Your task to perform on an android device: Search for razer nari on target, select the first entry, and add it to the cart. Image 0: 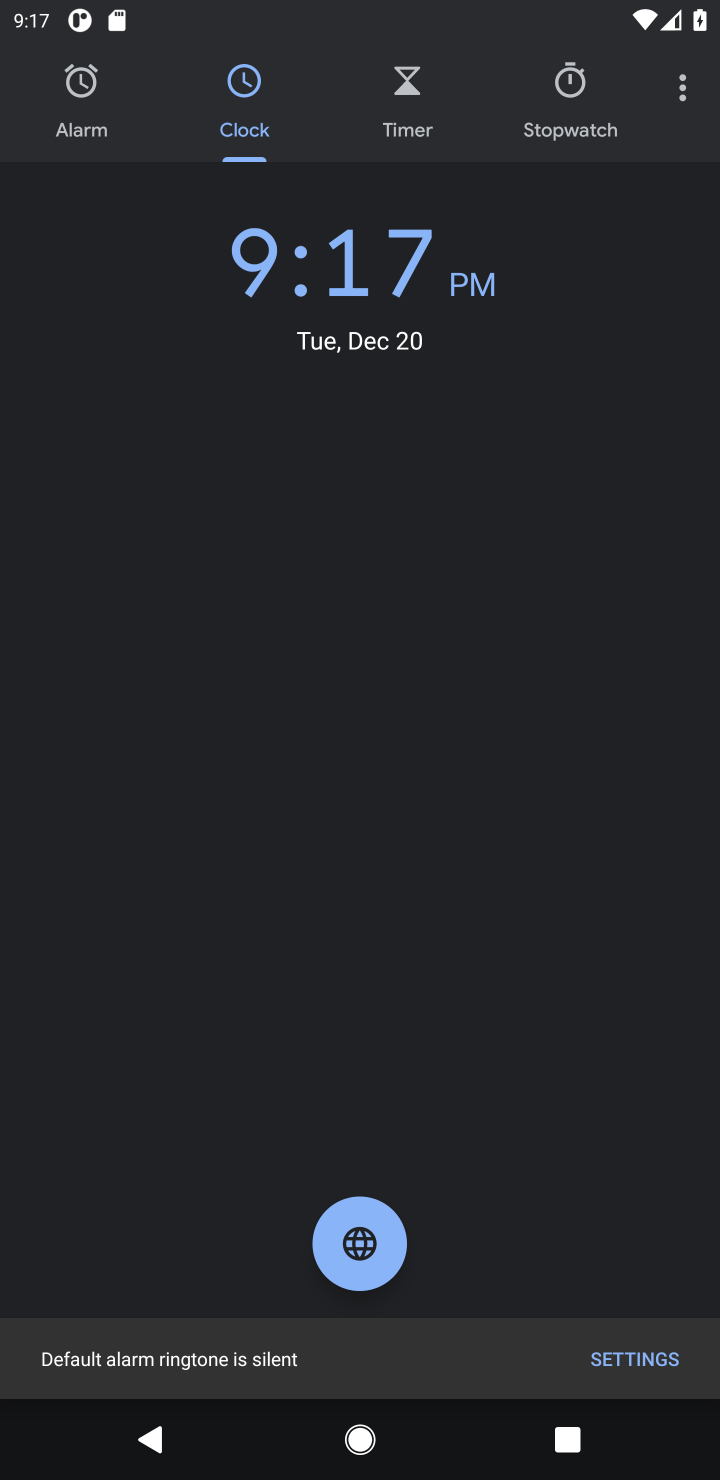
Step 0: press home button
Your task to perform on an android device: Search for razer nari on target, select the first entry, and add it to the cart. Image 1: 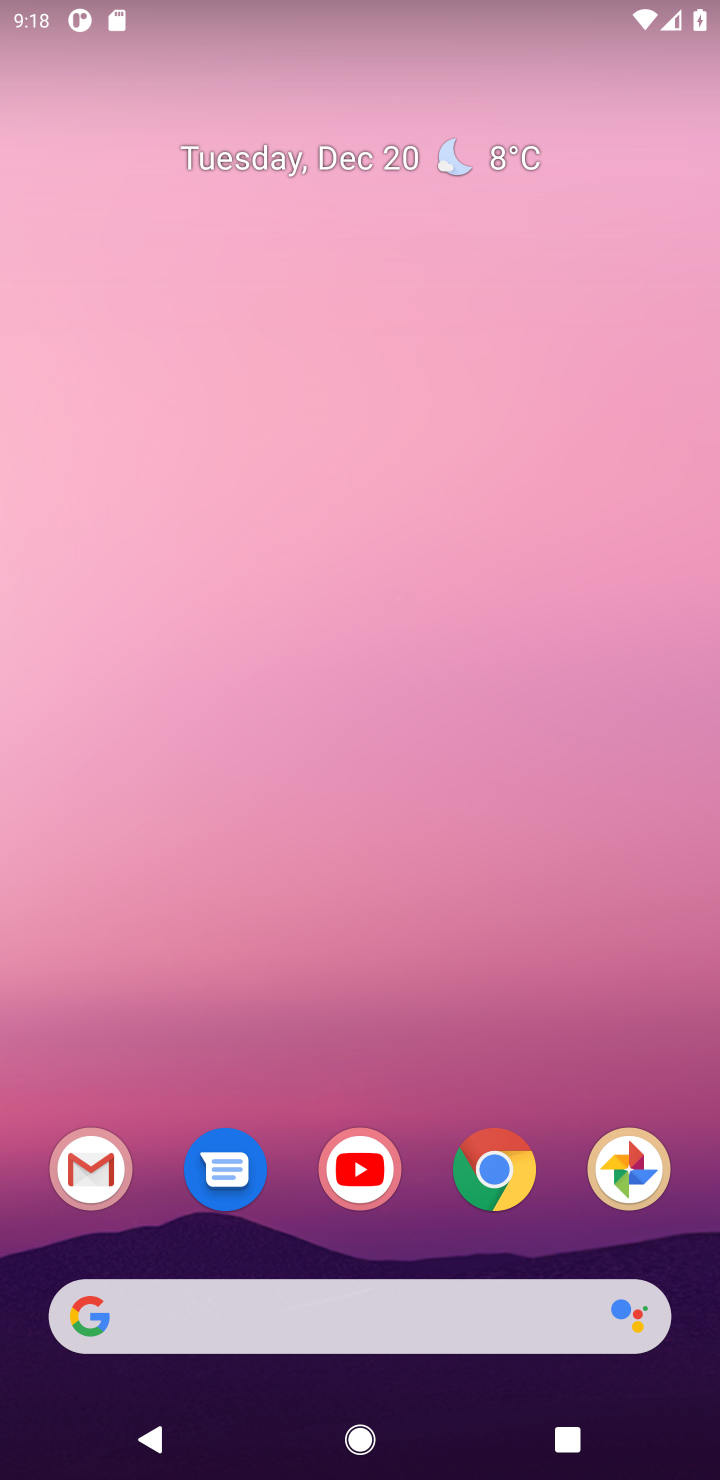
Step 1: click (499, 1166)
Your task to perform on an android device: Search for razer nari on target, select the first entry, and add it to the cart. Image 2: 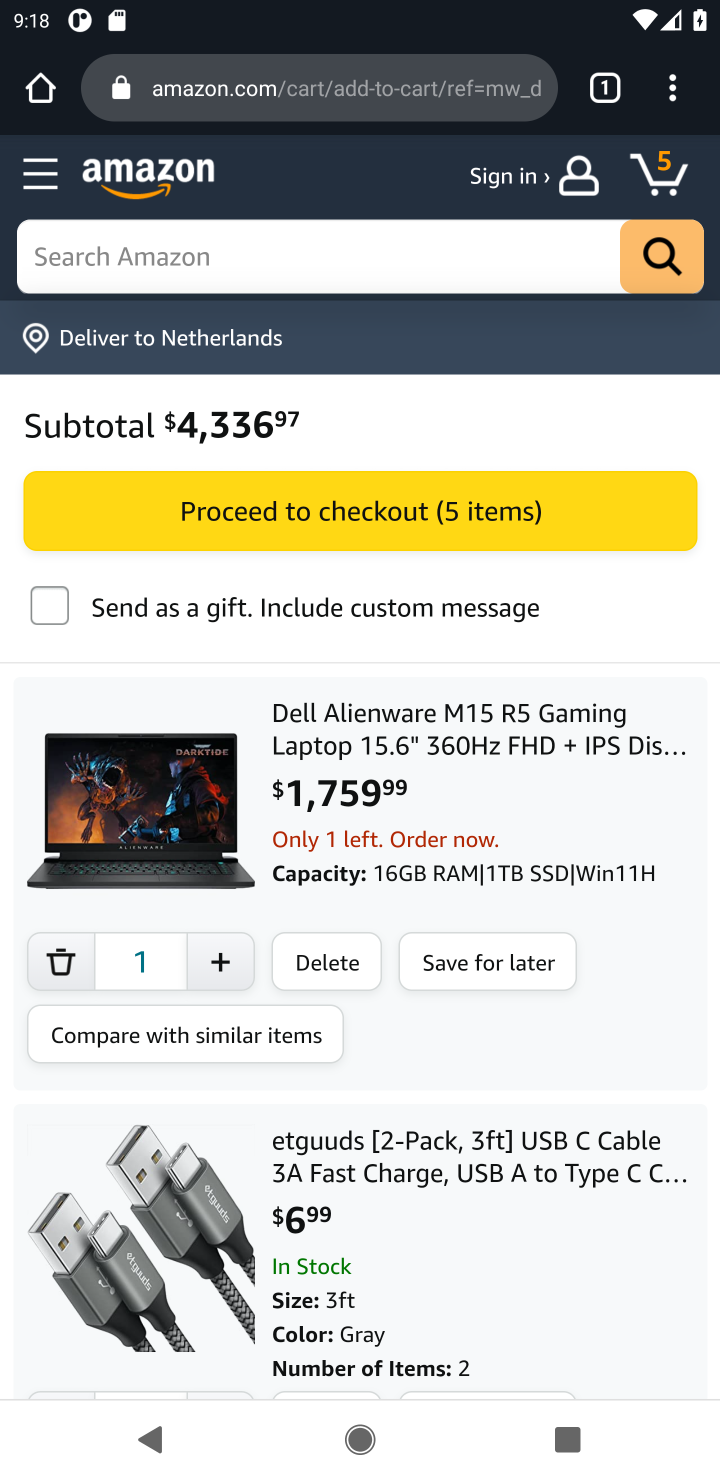
Step 2: click (362, 103)
Your task to perform on an android device: Search for razer nari on target, select the first entry, and add it to the cart. Image 3: 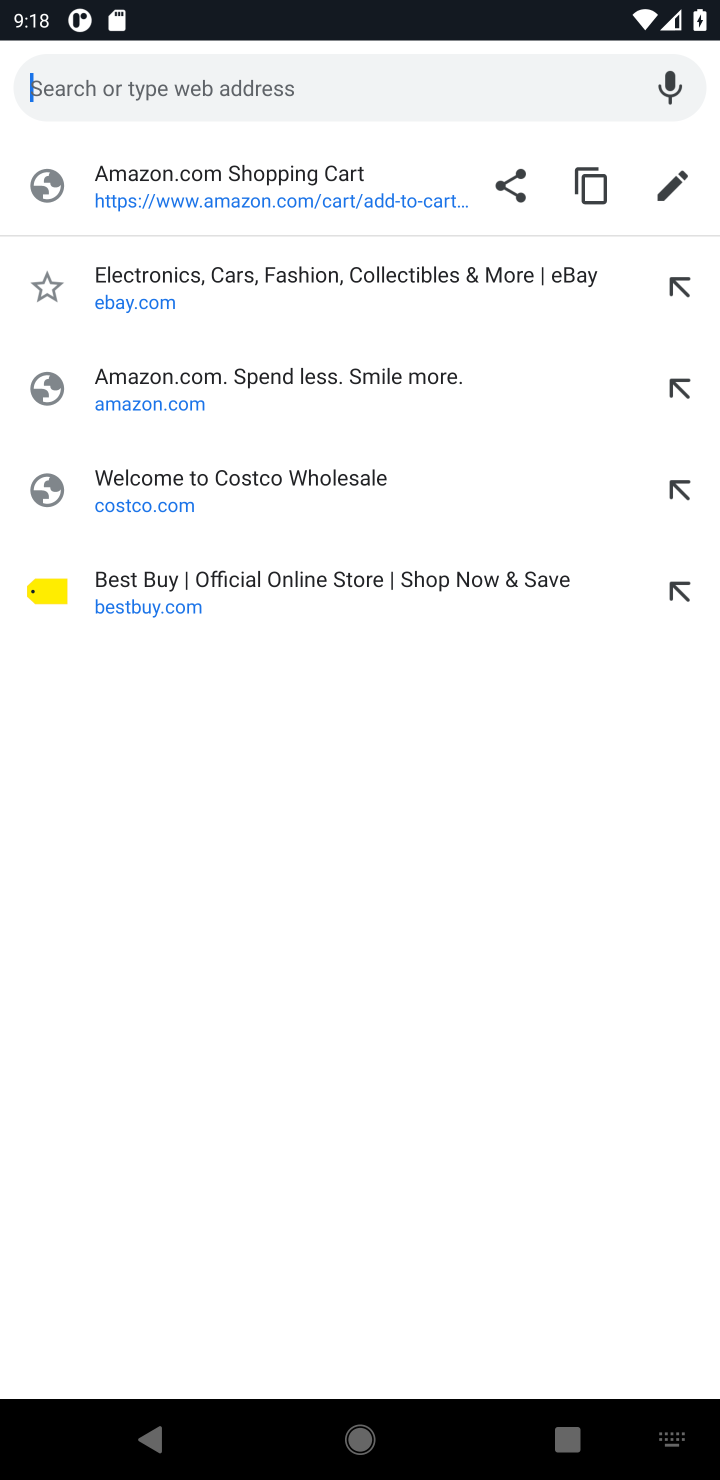
Step 3: type "target"
Your task to perform on an android device: Search for razer nari on target, select the first entry, and add it to the cart. Image 4: 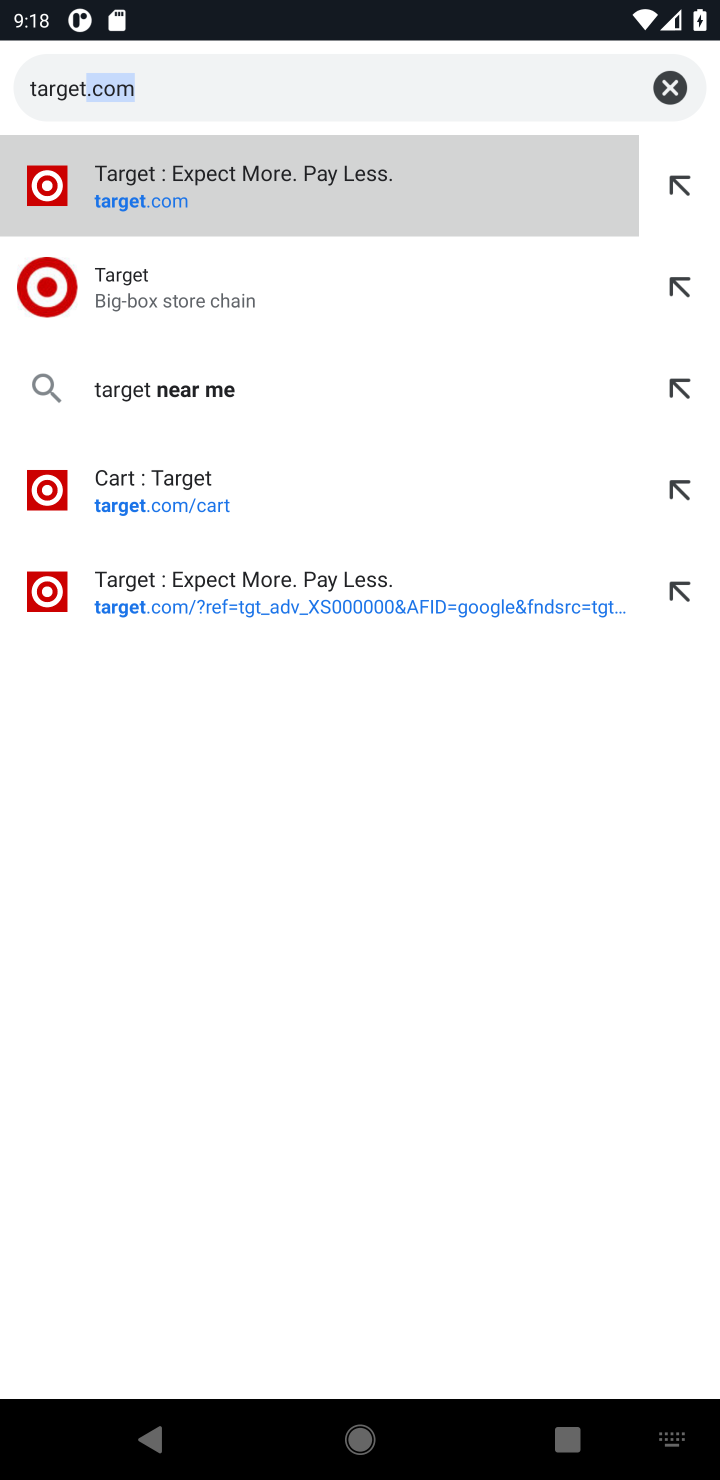
Step 4: click (248, 191)
Your task to perform on an android device: Search for razer nari on target, select the first entry, and add it to the cart. Image 5: 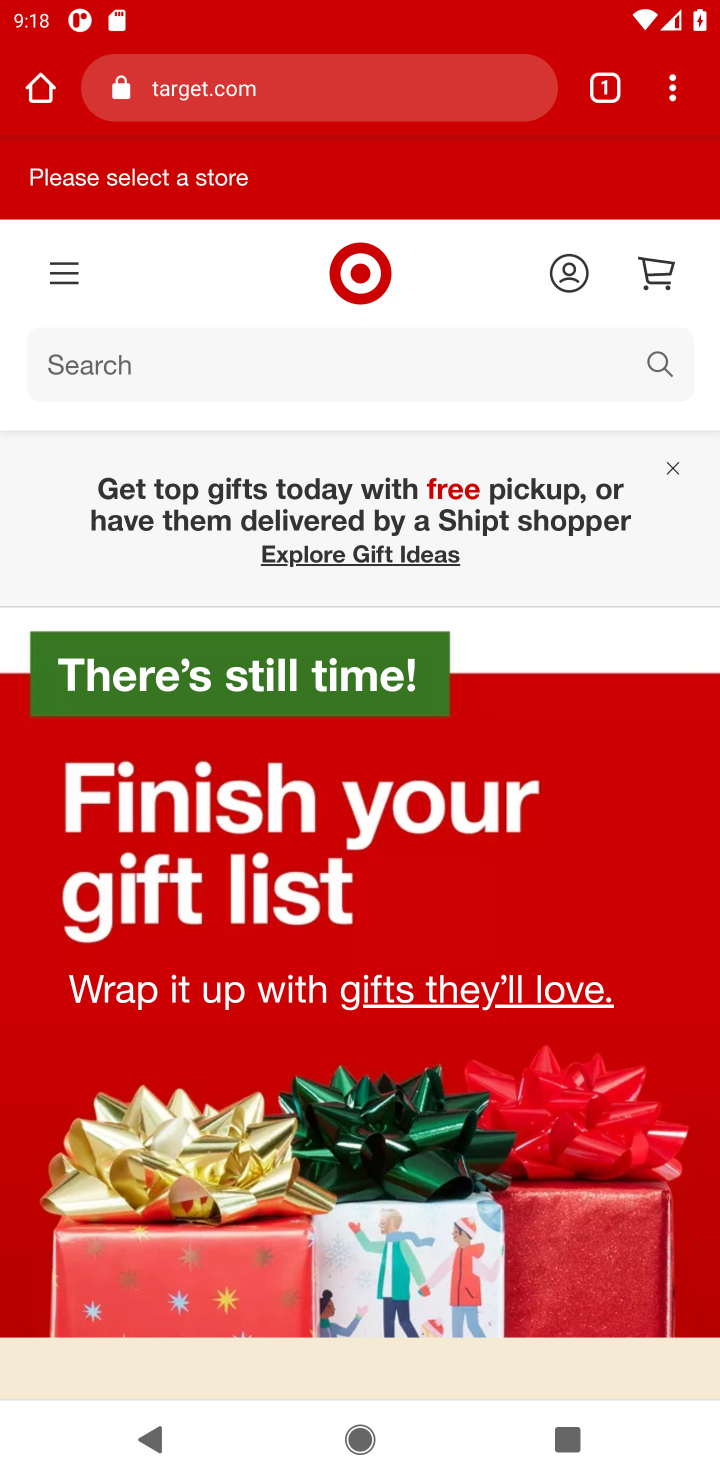
Step 5: click (193, 373)
Your task to perform on an android device: Search for razer nari on target, select the first entry, and add it to the cart. Image 6: 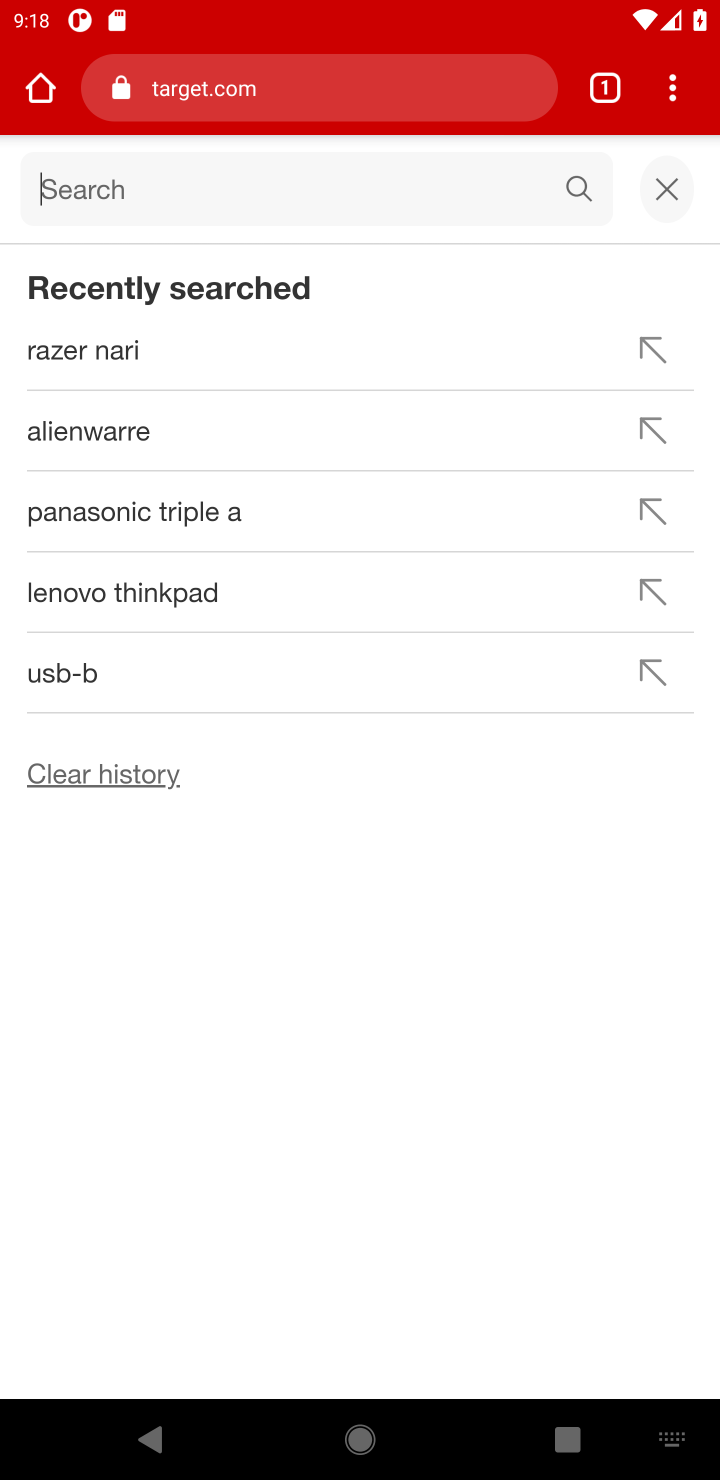
Step 6: type "razer nari"
Your task to perform on an android device: Search for razer nari on target, select the first entry, and add it to the cart. Image 7: 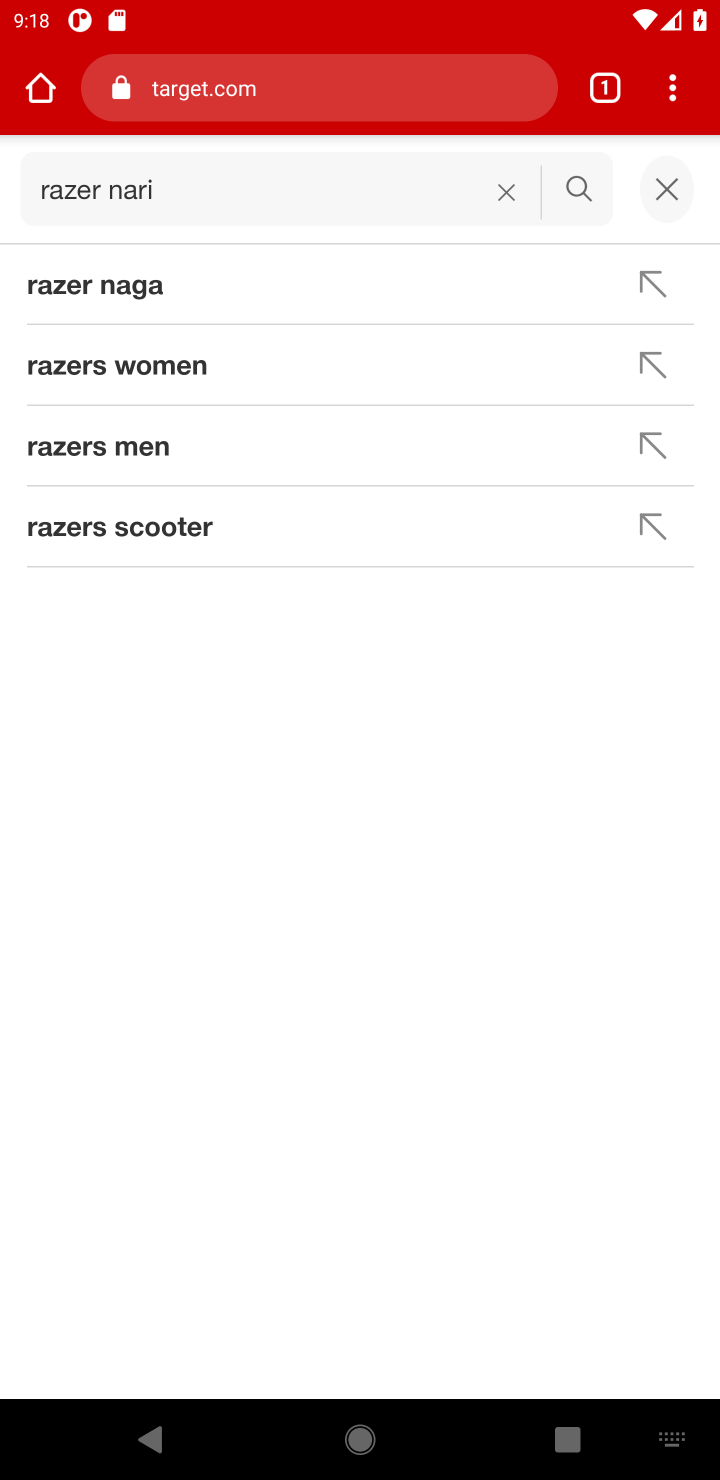
Step 7: click (574, 186)
Your task to perform on an android device: Search for razer nari on target, select the first entry, and add it to the cart. Image 8: 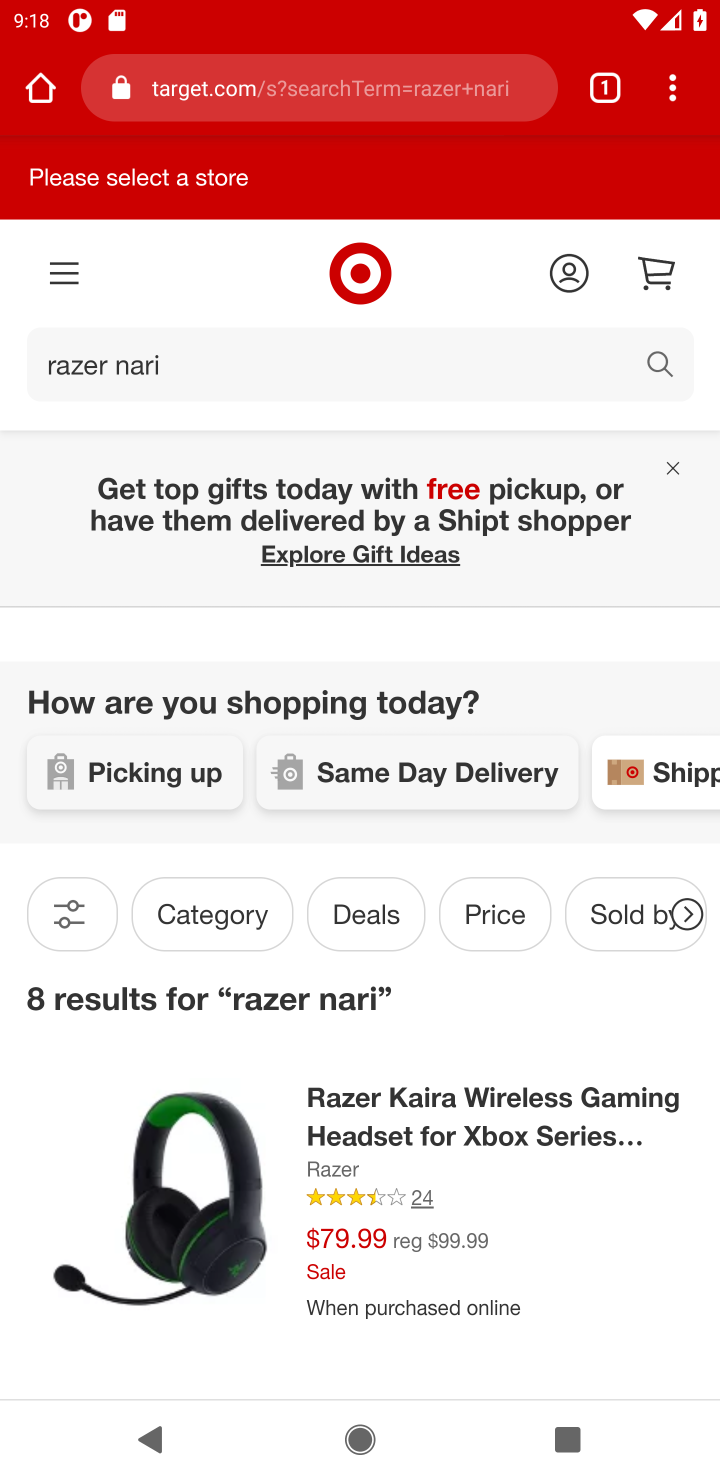
Step 8: click (450, 1108)
Your task to perform on an android device: Search for razer nari on target, select the first entry, and add it to the cart. Image 9: 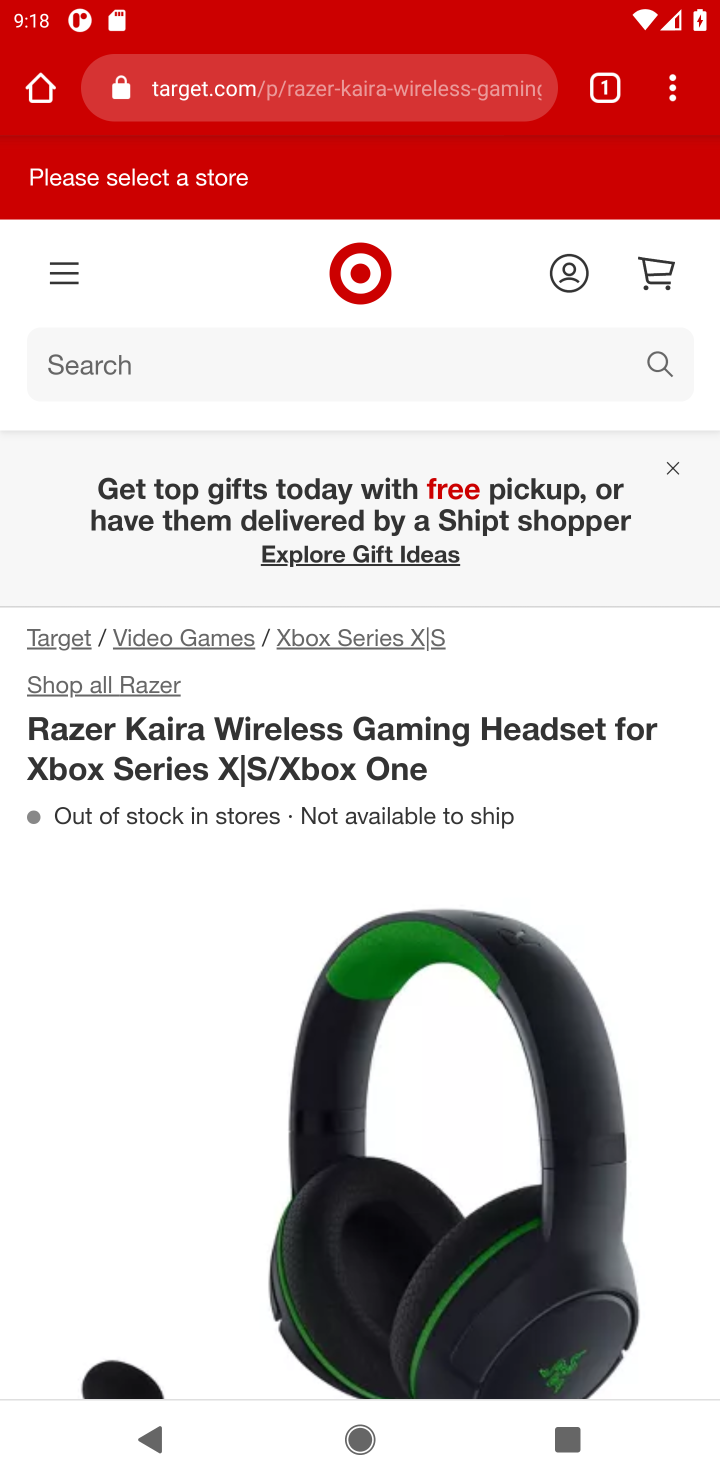
Step 9: drag from (450, 1108) to (456, 625)
Your task to perform on an android device: Search for razer nari on target, select the first entry, and add it to the cart. Image 10: 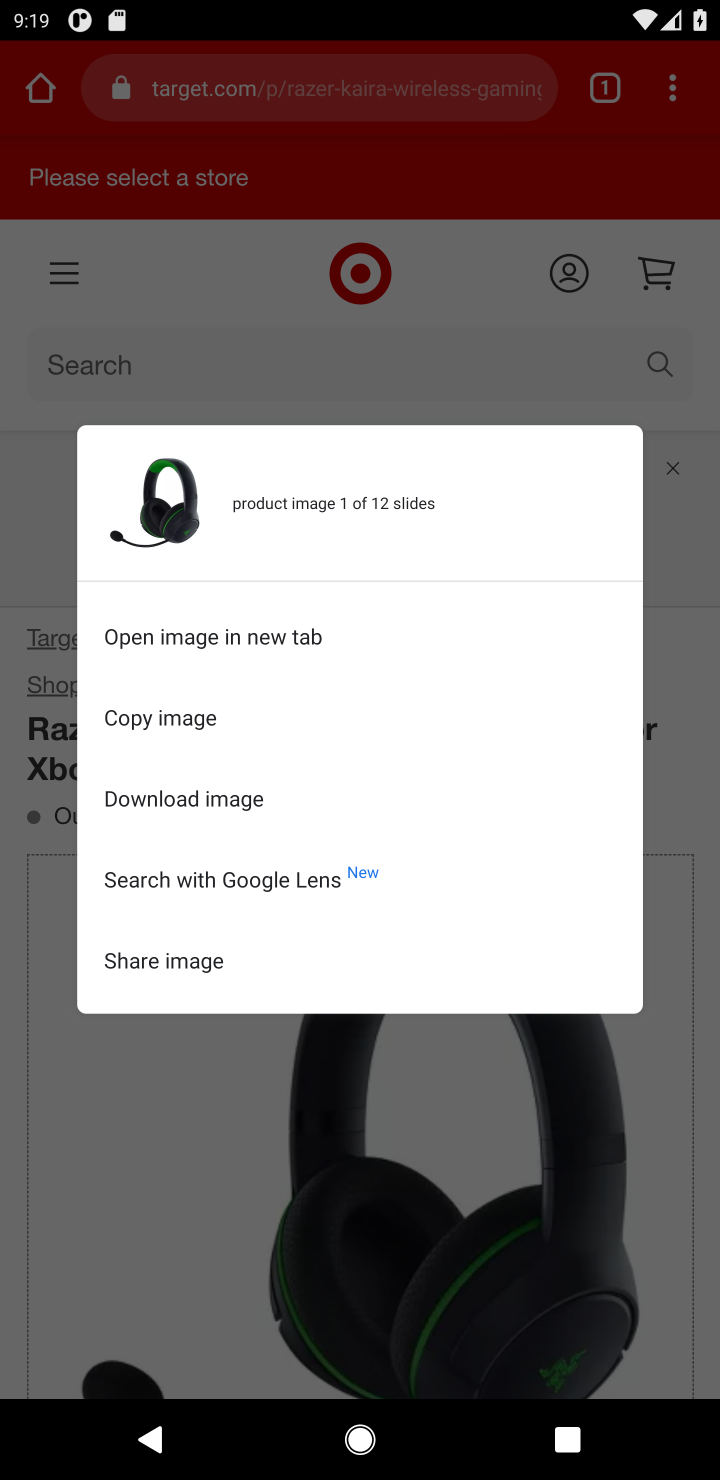
Step 10: click (461, 1065)
Your task to perform on an android device: Search for razer nari on target, select the first entry, and add it to the cart. Image 11: 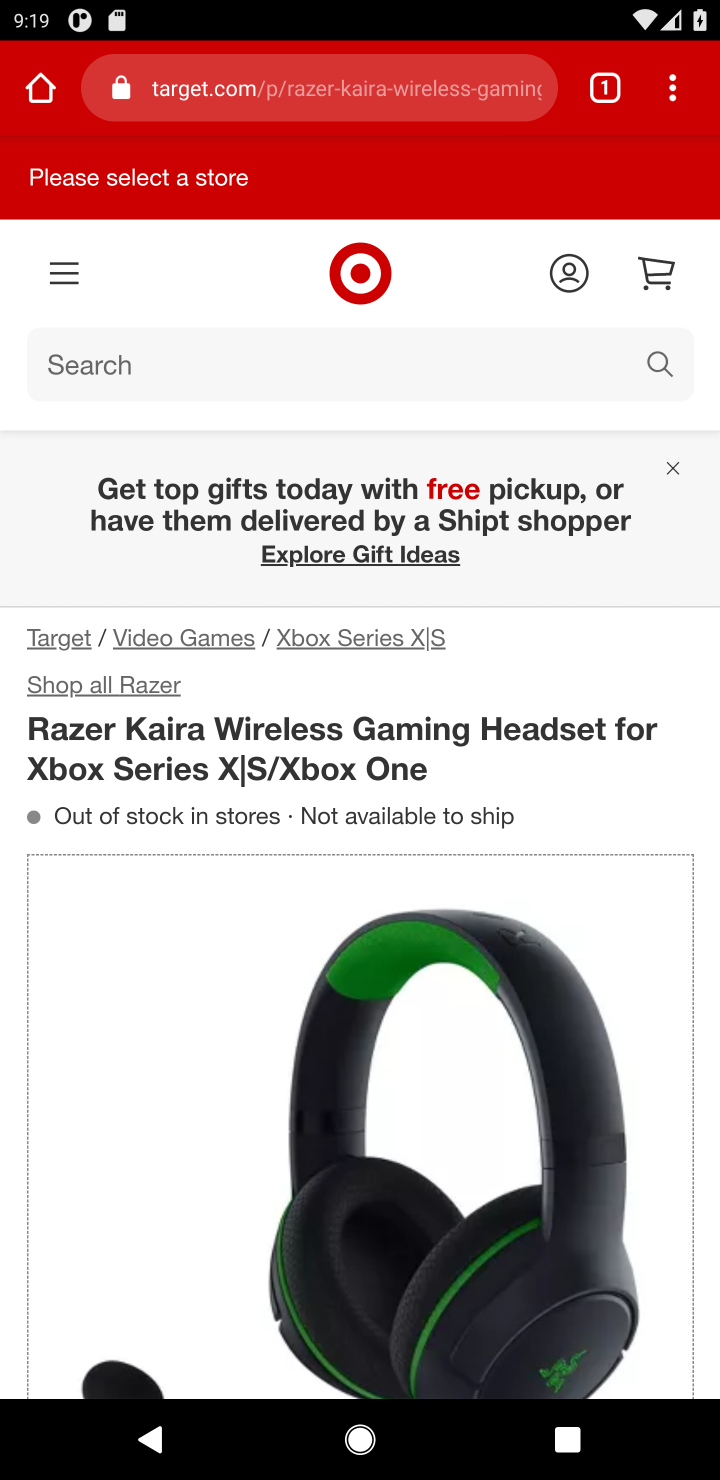
Step 11: drag from (461, 1065) to (457, 363)
Your task to perform on an android device: Search for razer nari on target, select the first entry, and add it to the cart. Image 12: 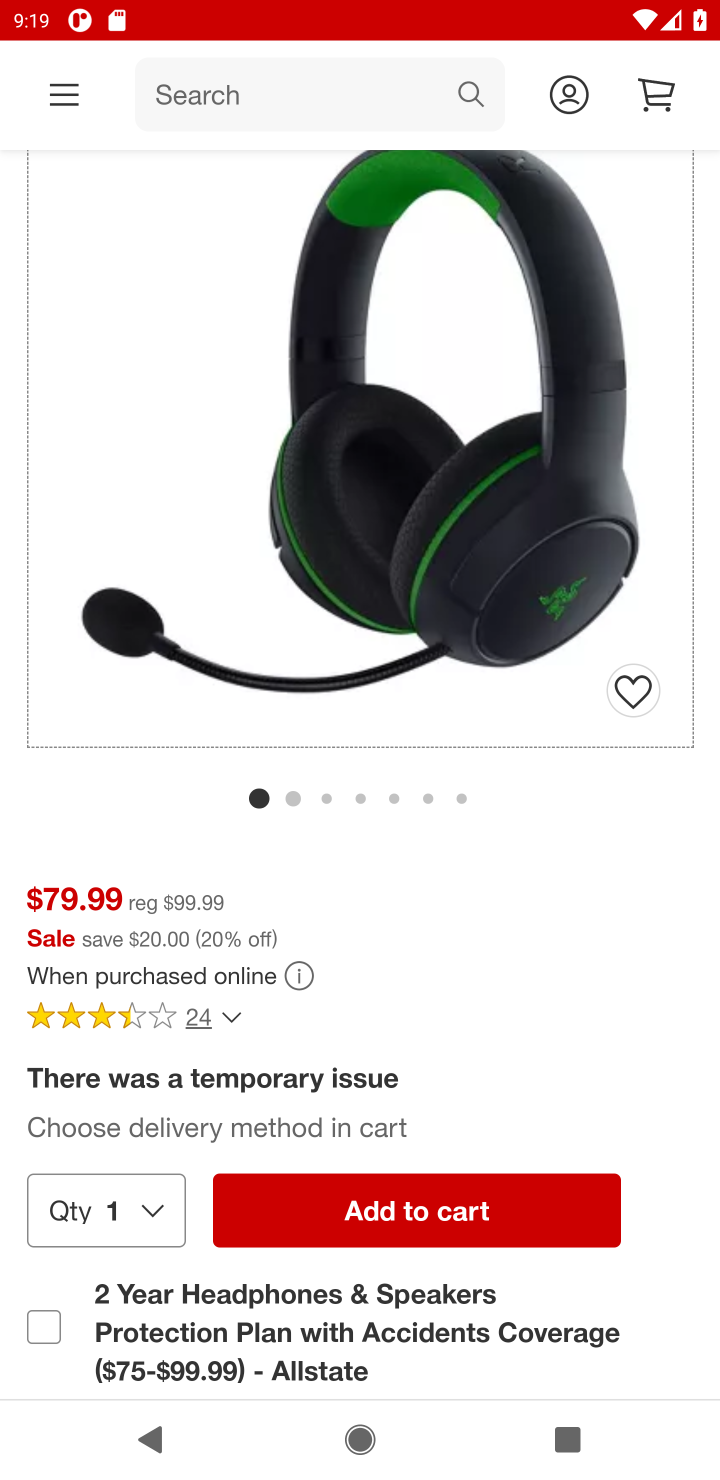
Step 12: click (493, 1194)
Your task to perform on an android device: Search for razer nari on target, select the first entry, and add it to the cart. Image 13: 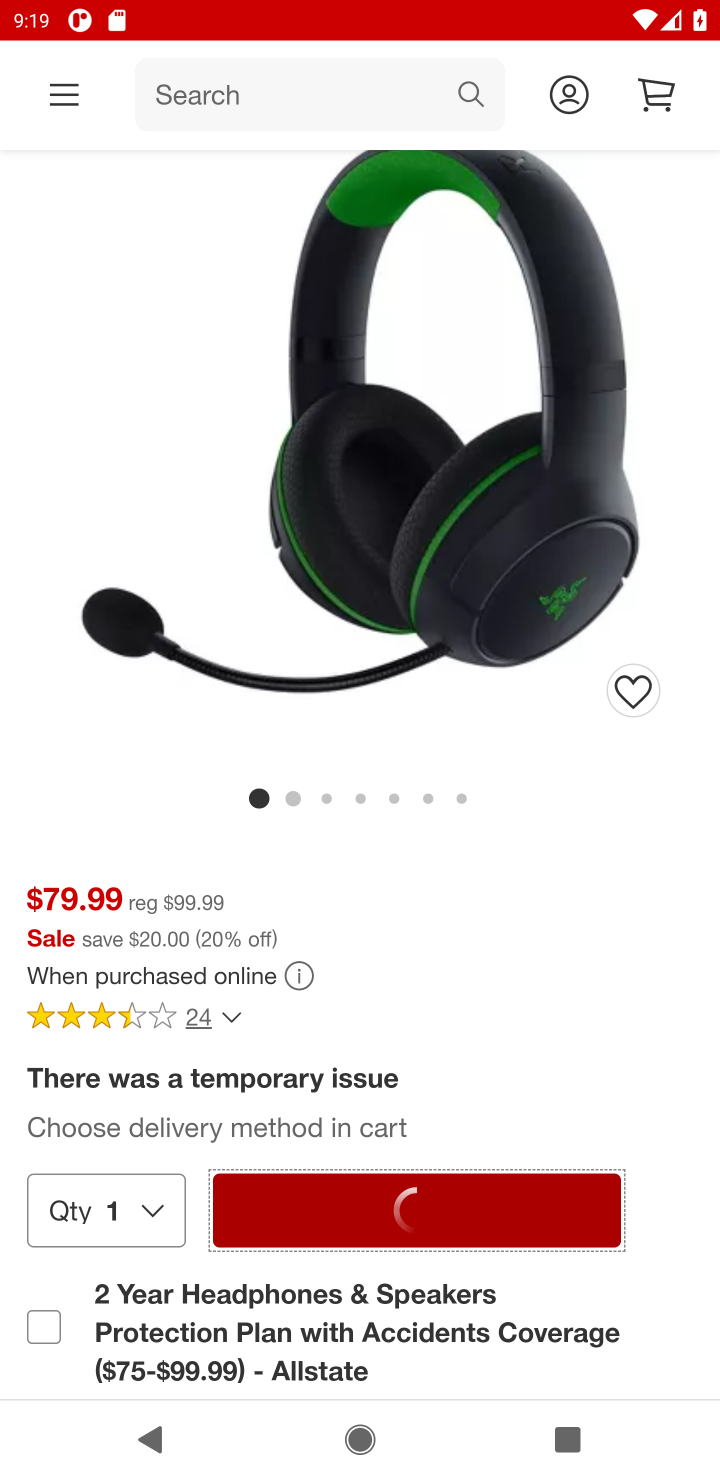
Step 13: task complete